Your task to perform on an android device: search for starred emails in the gmail app Image 0: 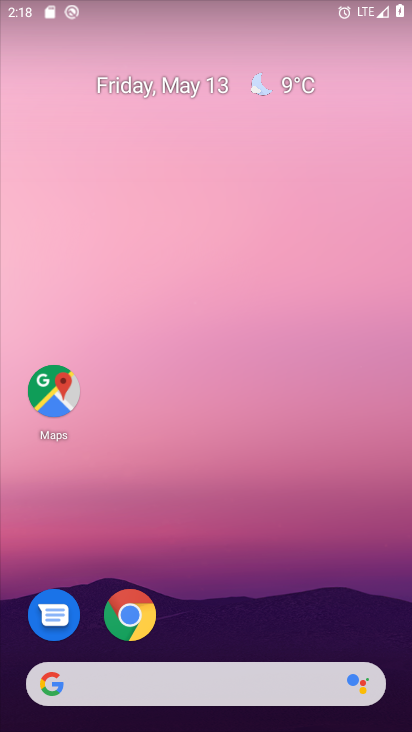
Step 0: drag from (329, 586) to (336, 56)
Your task to perform on an android device: search for starred emails in the gmail app Image 1: 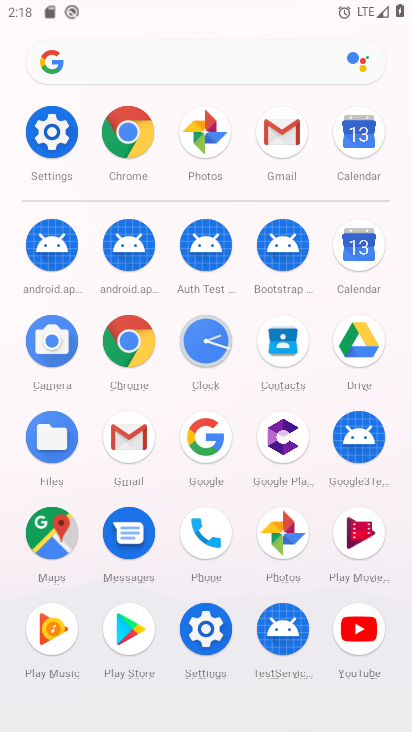
Step 1: click (276, 141)
Your task to perform on an android device: search for starred emails in the gmail app Image 2: 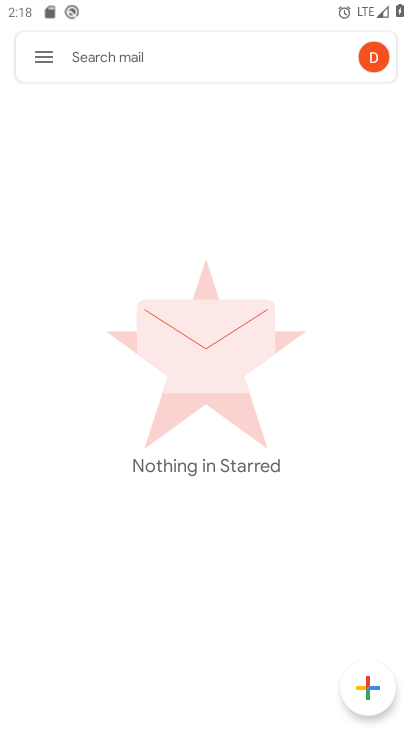
Step 2: task complete